Your task to perform on an android device: open a new tab in the chrome app Image 0: 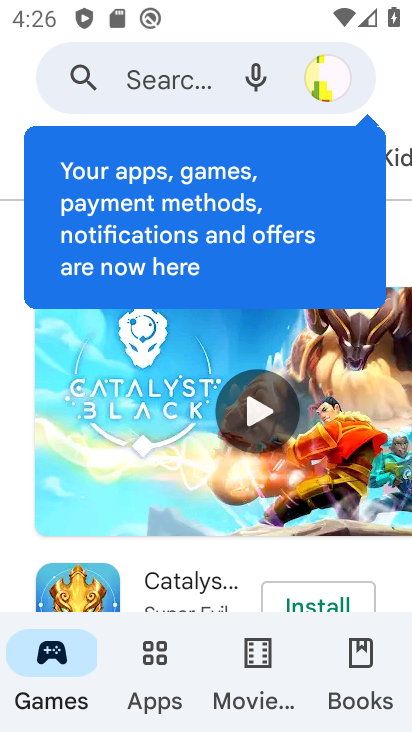
Step 0: press home button
Your task to perform on an android device: open a new tab in the chrome app Image 1: 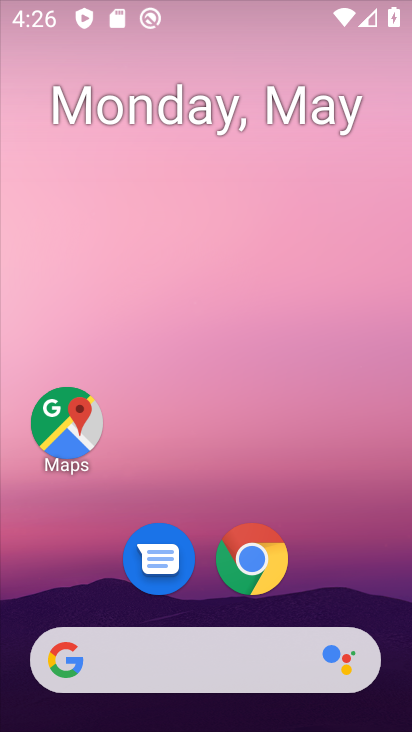
Step 1: drag from (315, 551) to (332, 62)
Your task to perform on an android device: open a new tab in the chrome app Image 2: 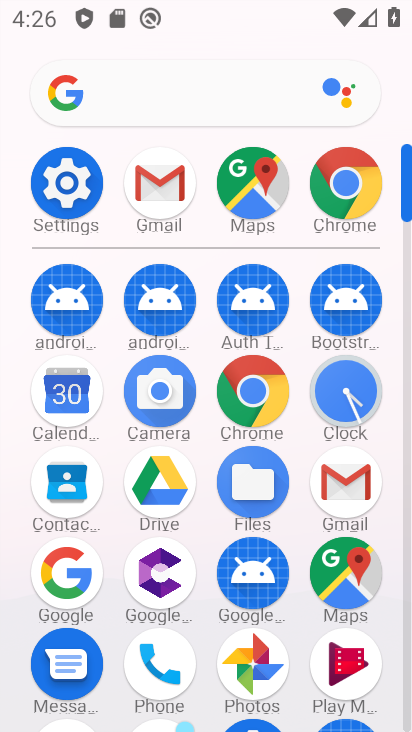
Step 2: click (261, 384)
Your task to perform on an android device: open a new tab in the chrome app Image 3: 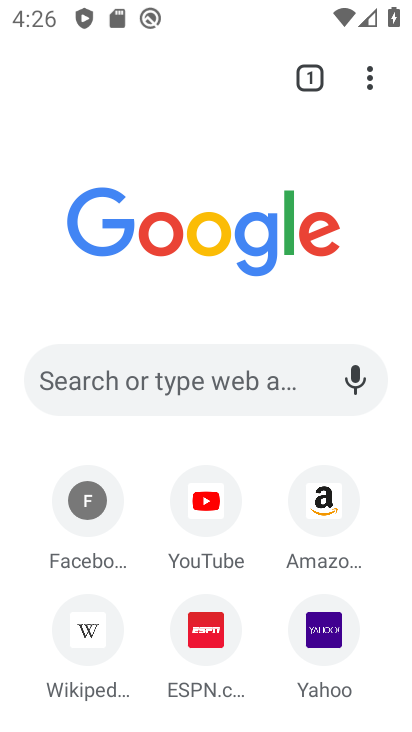
Step 3: task complete